Your task to perform on an android device: Open accessibility settings Image 0: 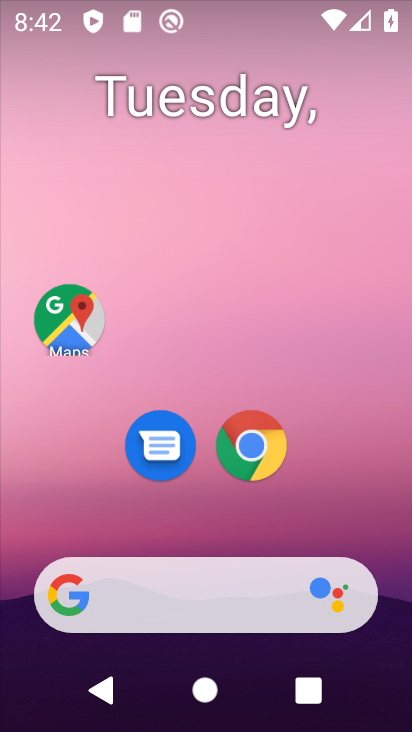
Step 0: drag from (393, 528) to (301, 102)
Your task to perform on an android device: Open accessibility settings Image 1: 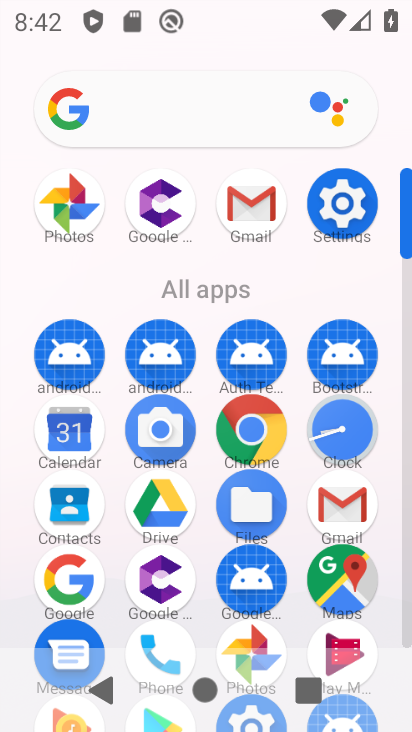
Step 1: click (337, 230)
Your task to perform on an android device: Open accessibility settings Image 2: 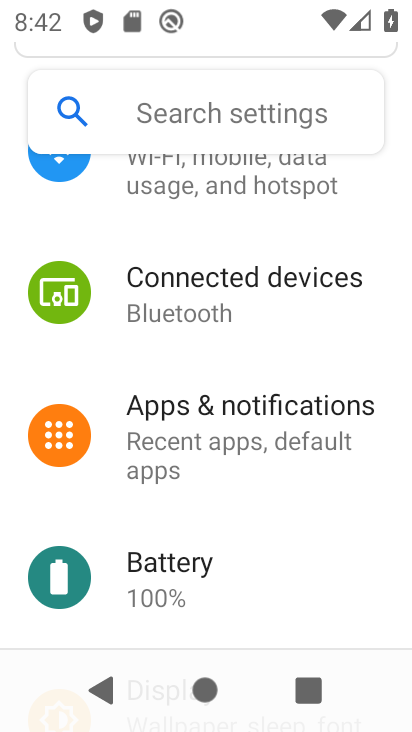
Step 2: drag from (226, 557) to (246, 15)
Your task to perform on an android device: Open accessibility settings Image 3: 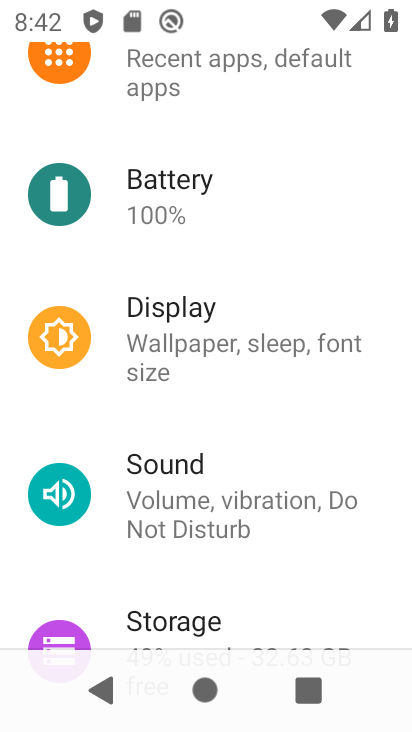
Step 3: drag from (223, 590) to (259, 146)
Your task to perform on an android device: Open accessibility settings Image 4: 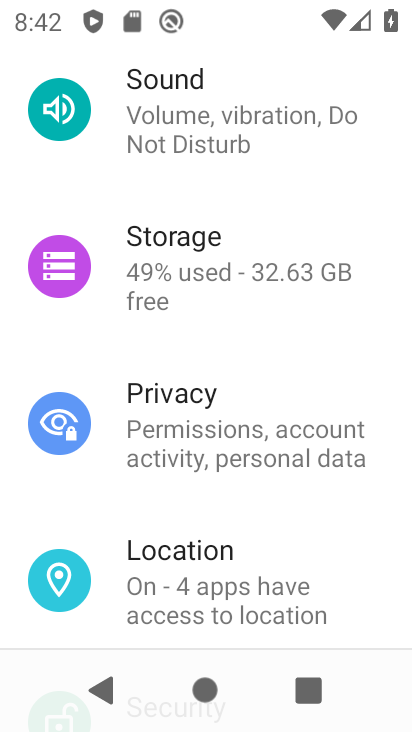
Step 4: drag from (226, 512) to (228, 30)
Your task to perform on an android device: Open accessibility settings Image 5: 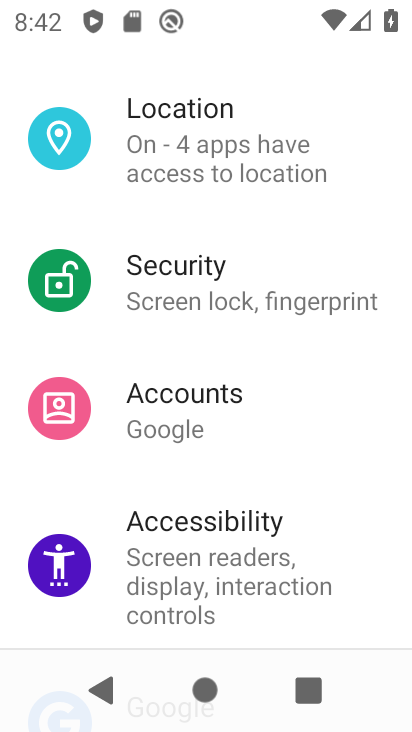
Step 5: click (215, 525)
Your task to perform on an android device: Open accessibility settings Image 6: 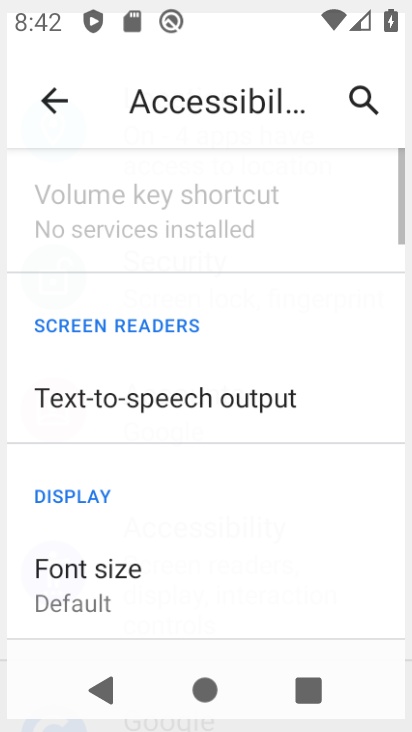
Step 6: click (215, 525)
Your task to perform on an android device: Open accessibility settings Image 7: 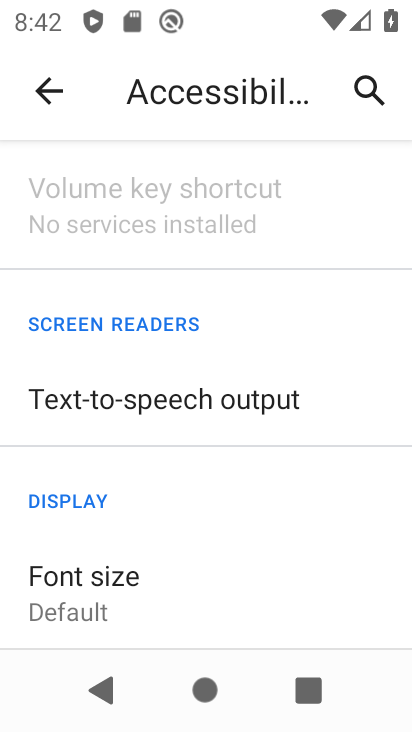
Step 7: task complete